Your task to perform on an android device: install app "Calculator" Image 0: 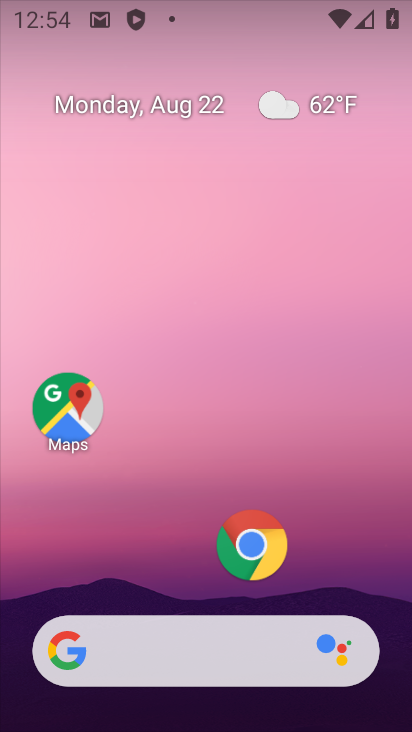
Step 0: drag from (164, 560) to (262, 50)
Your task to perform on an android device: install app "Calculator" Image 1: 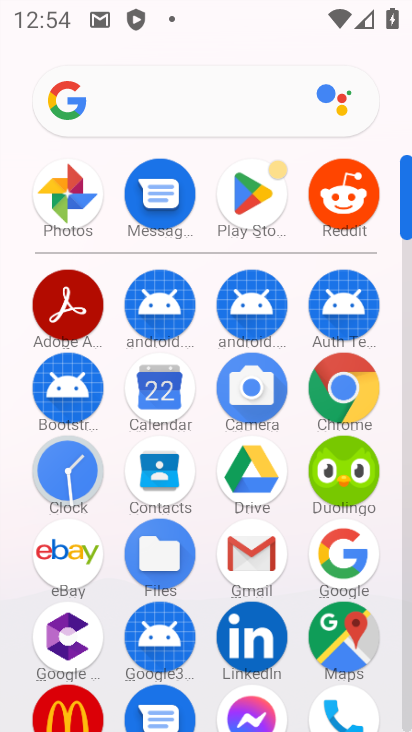
Step 1: click (256, 203)
Your task to perform on an android device: install app "Calculator" Image 2: 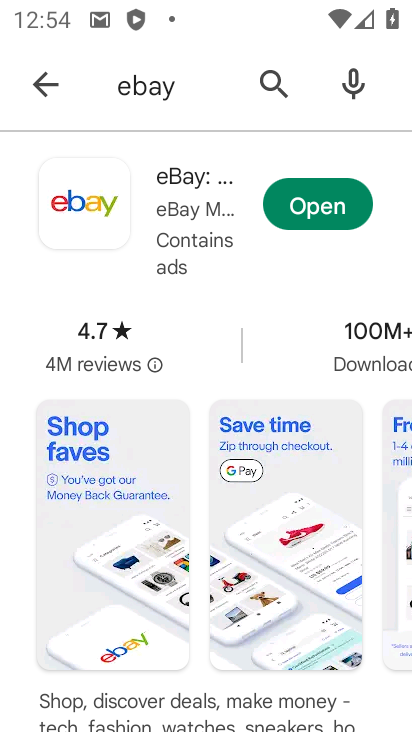
Step 2: click (282, 75)
Your task to perform on an android device: install app "Calculator" Image 3: 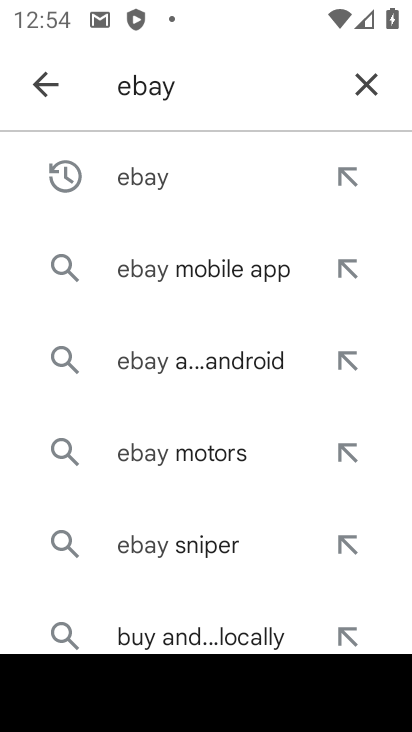
Step 3: click (357, 85)
Your task to perform on an android device: install app "Calculator" Image 4: 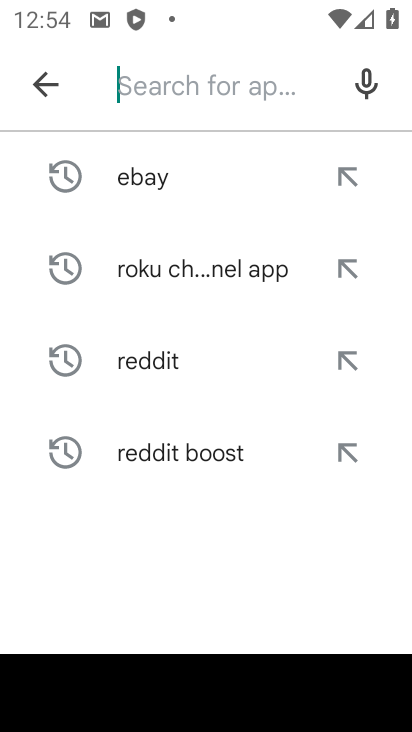
Step 4: type "calculator"
Your task to perform on an android device: install app "Calculator" Image 5: 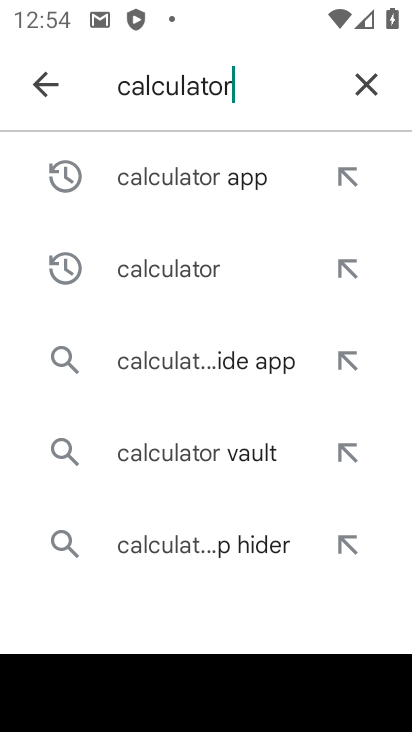
Step 5: click (130, 143)
Your task to perform on an android device: install app "Calculator" Image 6: 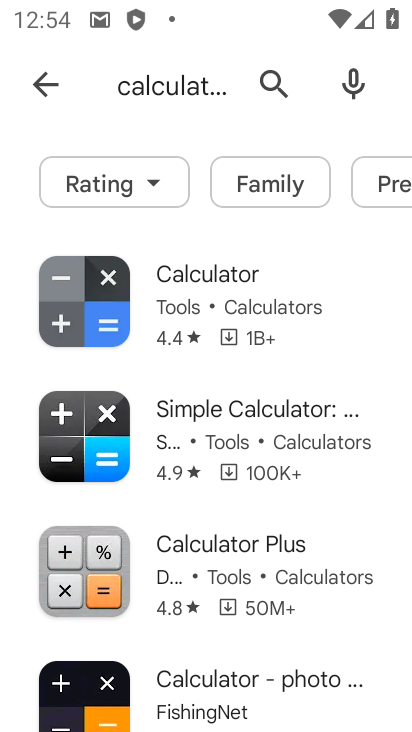
Step 6: click (132, 311)
Your task to perform on an android device: install app "Calculator" Image 7: 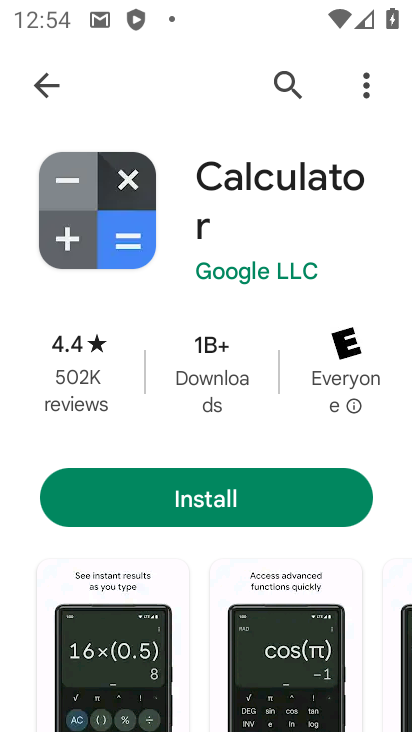
Step 7: click (189, 499)
Your task to perform on an android device: install app "Calculator" Image 8: 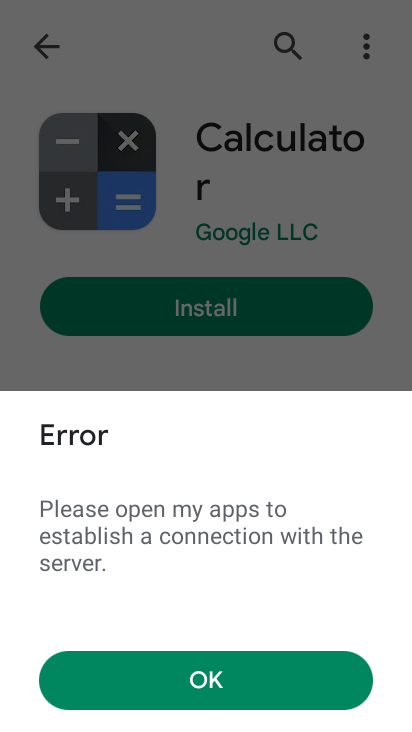
Step 8: click (228, 685)
Your task to perform on an android device: install app "Calculator" Image 9: 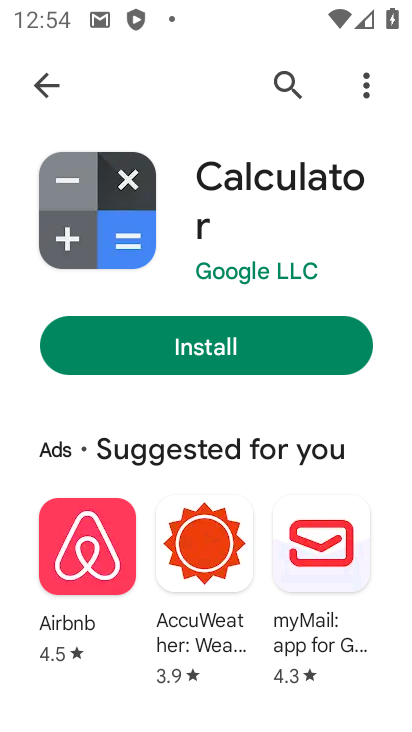
Step 9: task complete